Your task to perform on an android device: Open Google Chrome and click the shortcut for Amazon.com Image 0: 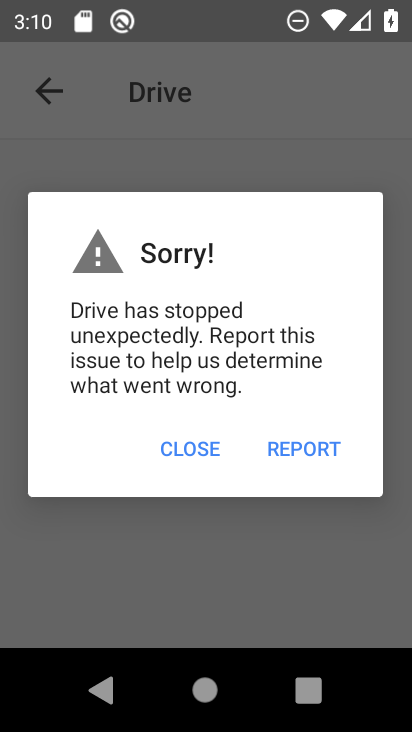
Step 0: press home button
Your task to perform on an android device: Open Google Chrome and click the shortcut for Amazon.com Image 1: 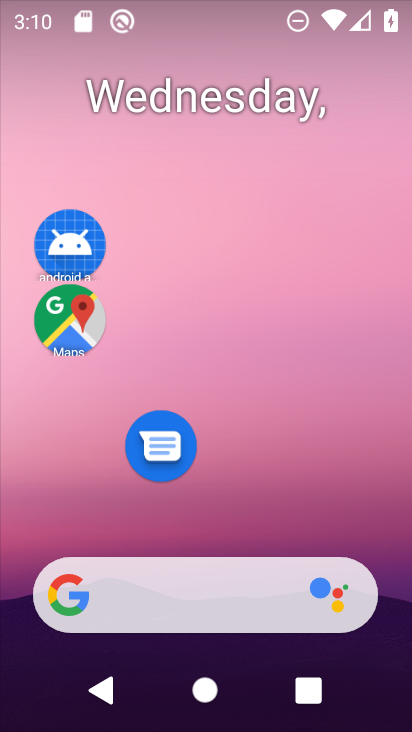
Step 1: drag from (279, 500) to (302, 157)
Your task to perform on an android device: Open Google Chrome and click the shortcut for Amazon.com Image 2: 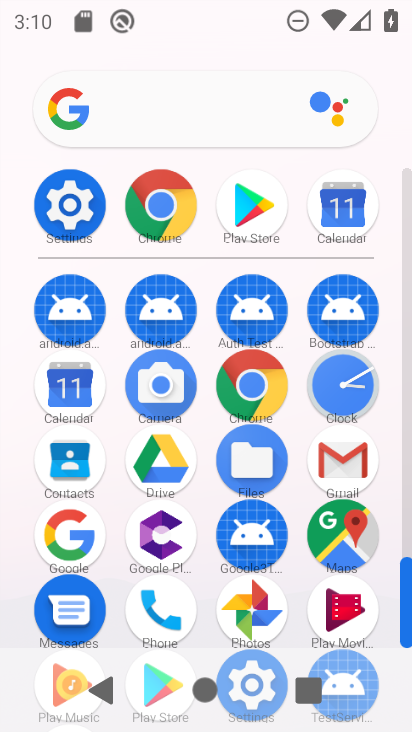
Step 2: click (164, 210)
Your task to perform on an android device: Open Google Chrome and click the shortcut for Amazon.com Image 3: 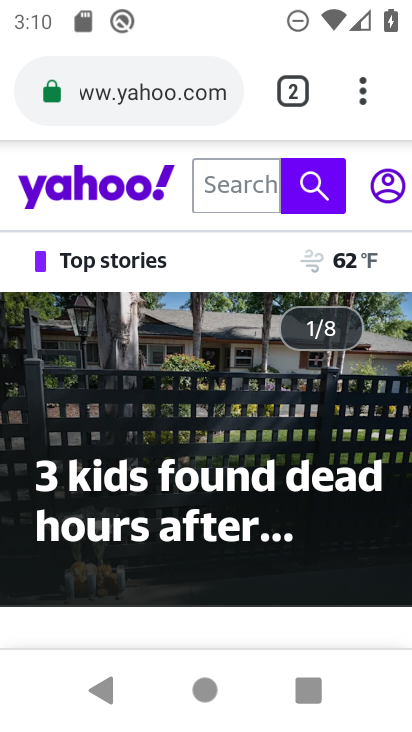
Step 3: click (285, 103)
Your task to perform on an android device: Open Google Chrome and click the shortcut for Amazon.com Image 4: 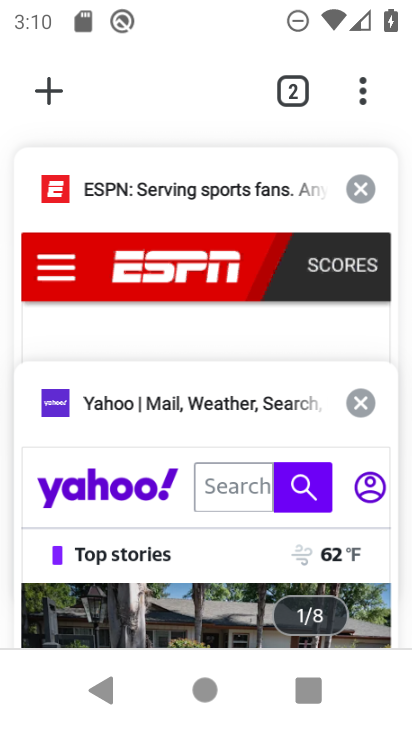
Step 4: click (36, 82)
Your task to perform on an android device: Open Google Chrome and click the shortcut for Amazon.com Image 5: 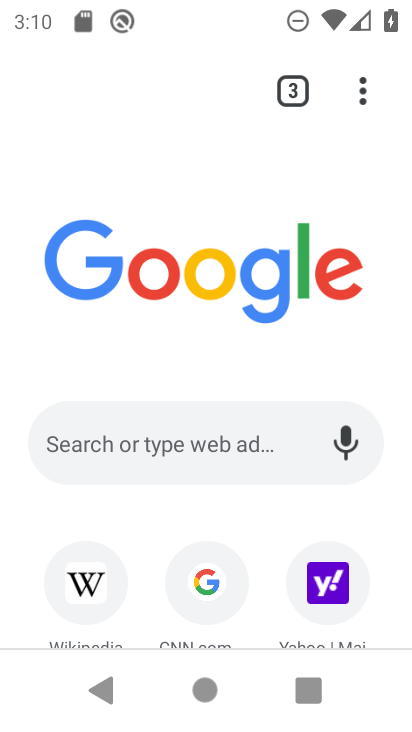
Step 5: drag from (266, 508) to (273, 294)
Your task to perform on an android device: Open Google Chrome and click the shortcut for Amazon.com Image 6: 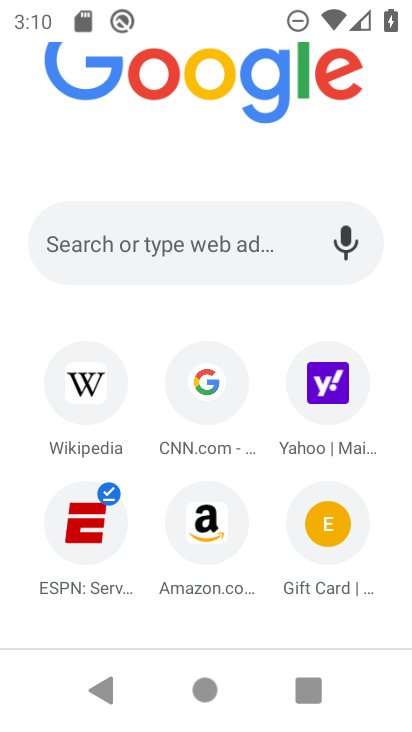
Step 6: click (232, 512)
Your task to perform on an android device: Open Google Chrome and click the shortcut for Amazon.com Image 7: 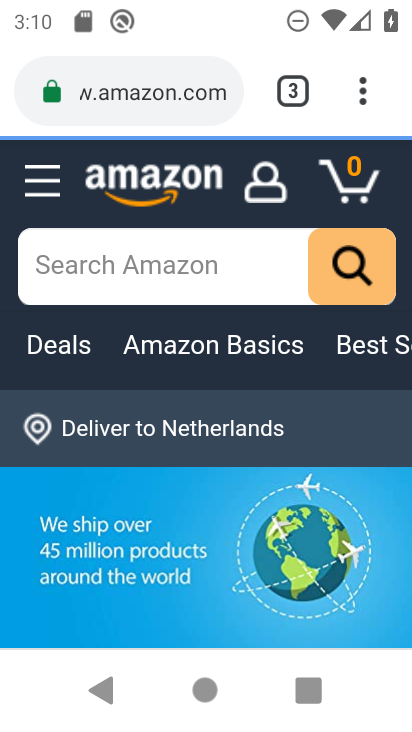
Step 7: task complete